Your task to perform on an android device: Open Maps and search for coffee Image 0: 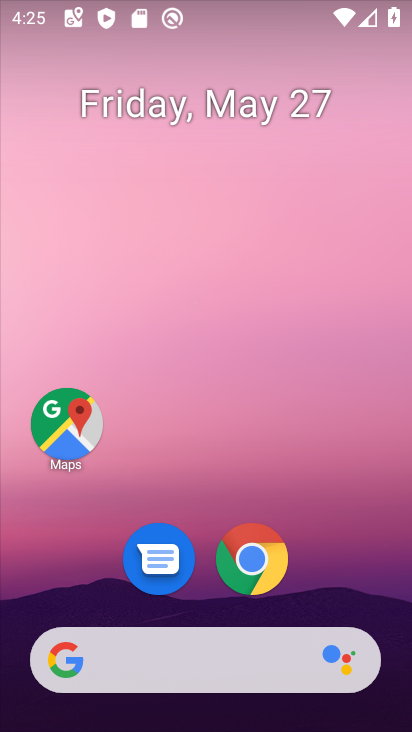
Step 0: click (60, 401)
Your task to perform on an android device: Open Maps and search for coffee Image 1: 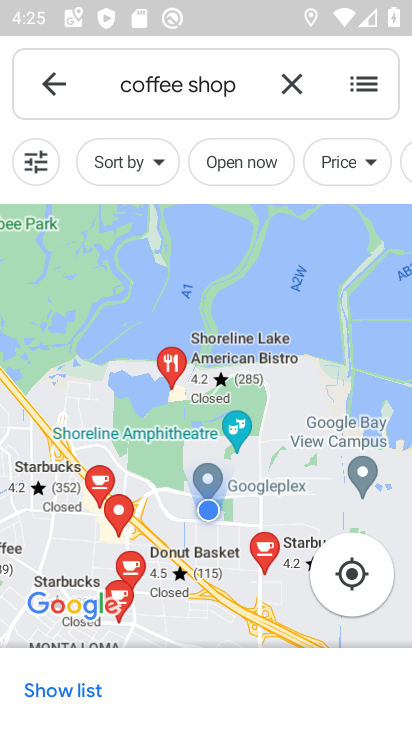
Step 1: click (228, 89)
Your task to perform on an android device: Open Maps and search for coffee Image 2: 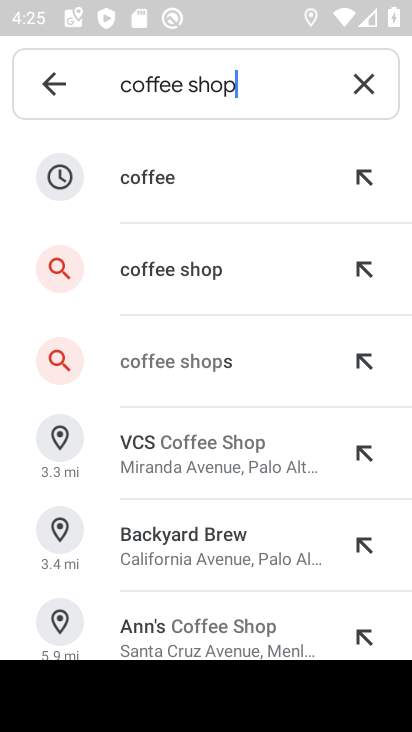
Step 2: click (135, 265)
Your task to perform on an android device: Open Maps and search for coffee Image 3: 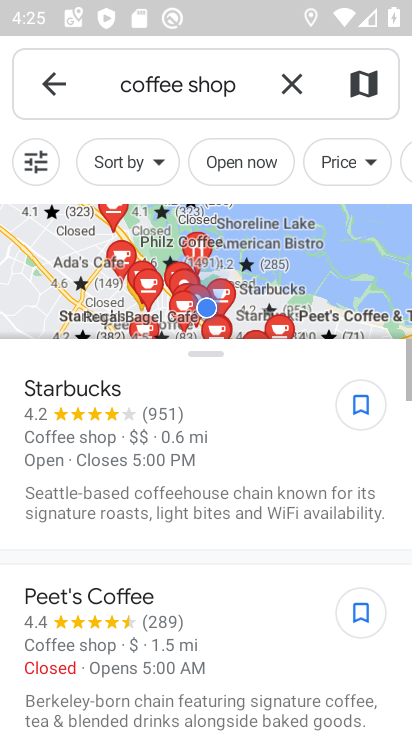
Step 3: task complete